Your task to perform on an android device: Open wifi settings Image 0: 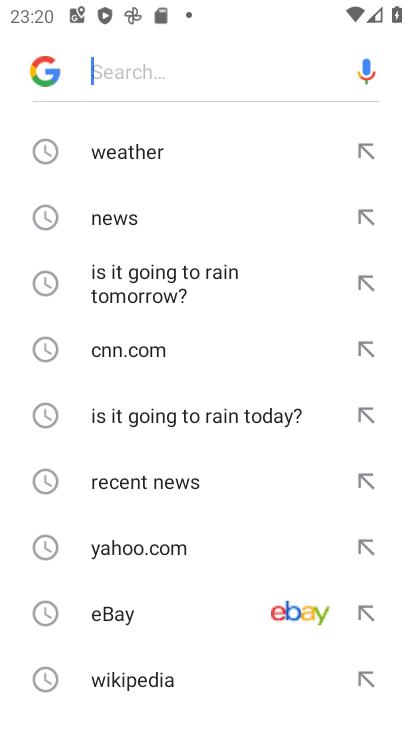
Step 0: drag from (191, 612) to (331, 65)
Your task to perform on an android device: Open wifi settings Image 1: 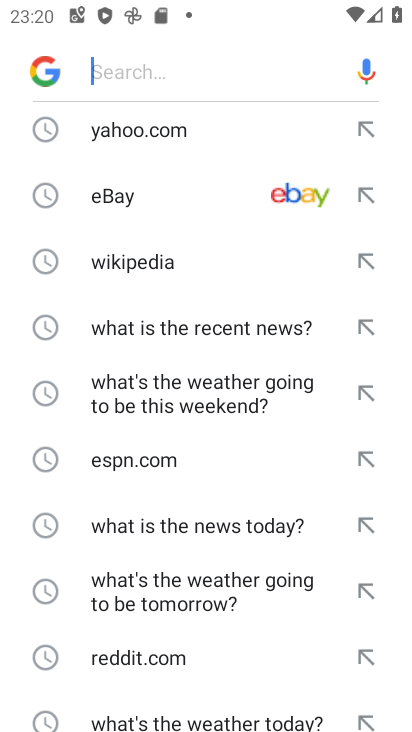
Step 1: drag from (213, 569) to (358, 63)
Your task to perform on an android device: Open wifi settings Image 2: 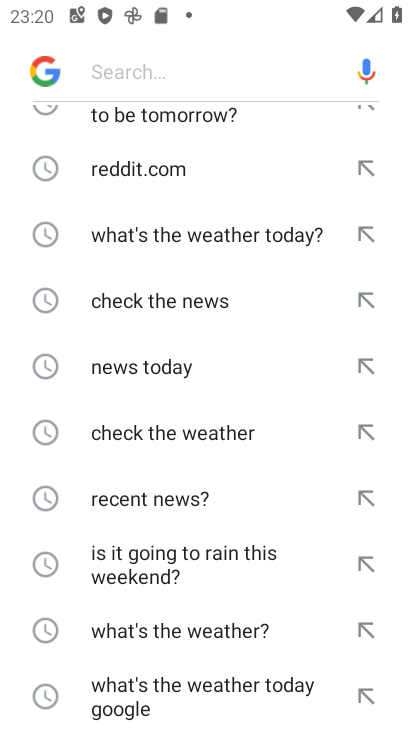
Step 2: press home button
Your task to perform on an android device: Open wifi settings Image 3: 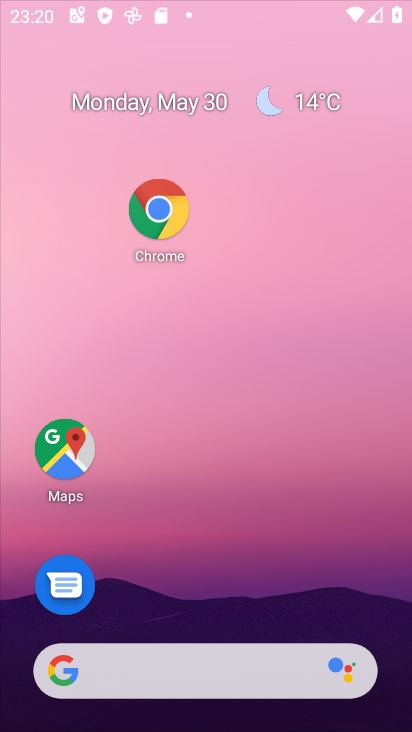
Step 3: drag from (107, 546) to (293, 22)
Your task to perform on an android device: Open wifi settings Image 4: 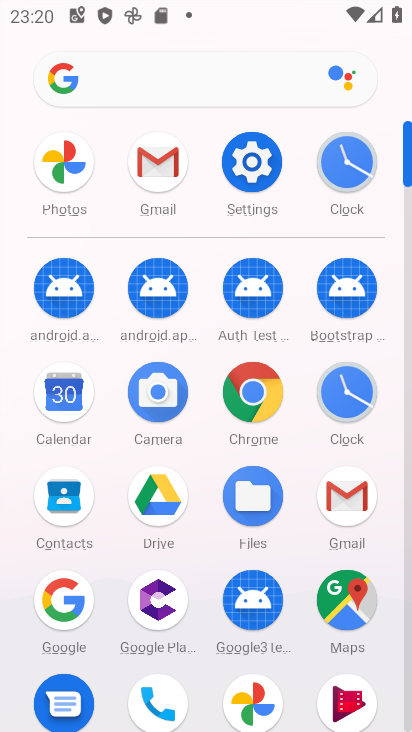
Step 4: click (260, 150)
Your task to perform on an android device: Open wifi settings Image 5: 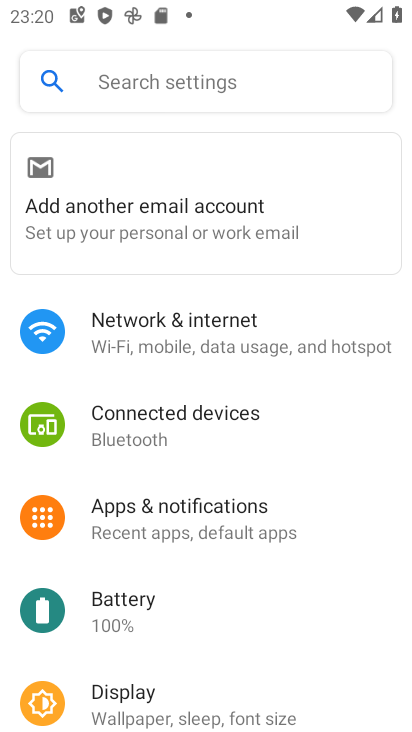
Step 5: click (186, 331)
Your task to perform on an android device: Open wifi settings Image 6: 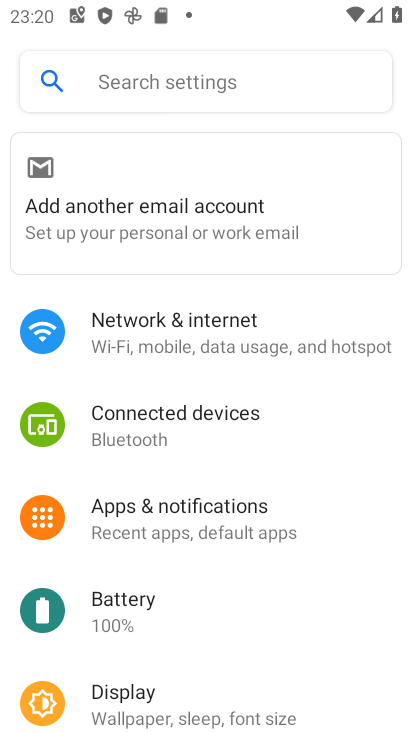
Step 6: click (186, 331)
Your task to perform on an android device: Open wifi settings Image 7: 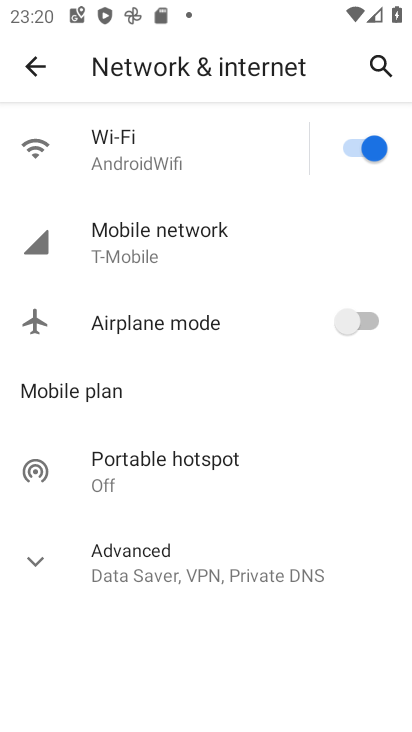
Step 7: click (248, 169)
Your task to perform on an android device: Open wifi settings Image 8: 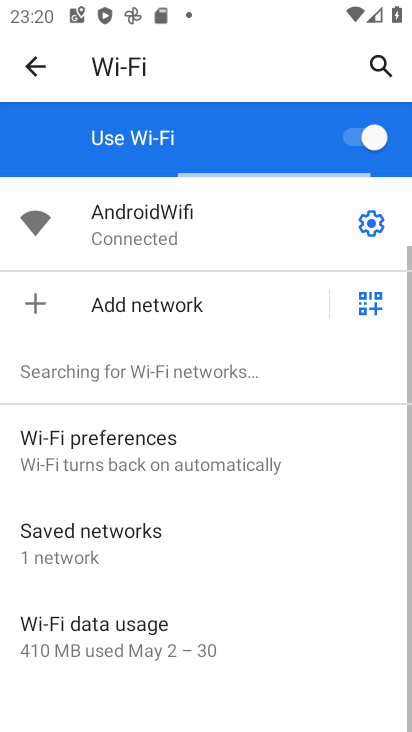
Step 8: click (380, 217)
Your task to perform on an android device: Open wifi settings Image 9: 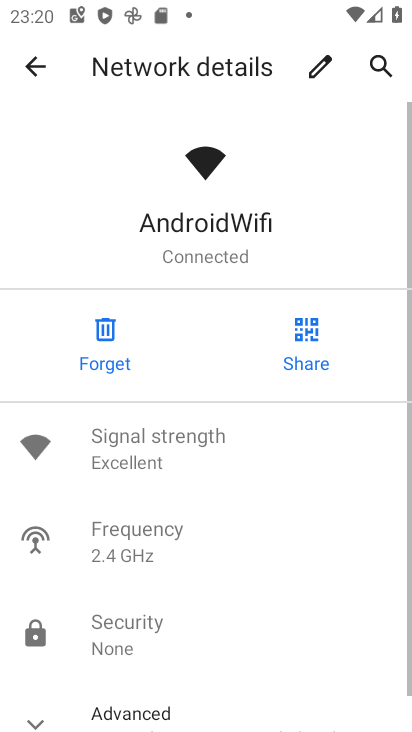
Step 9: task complete